Your task to perform on an android device: What's the weather going to be this weekend? Image 0: 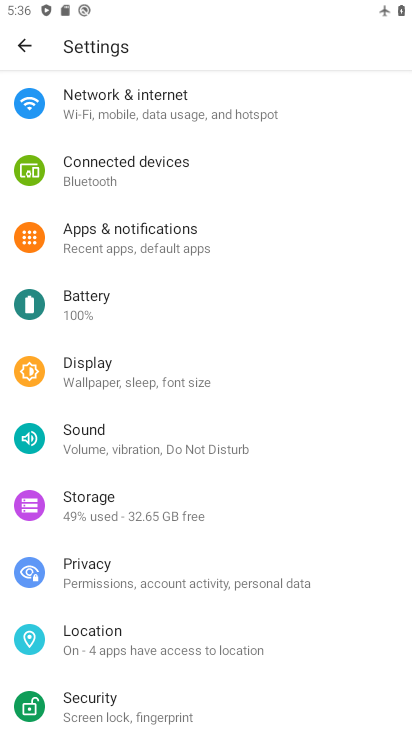
Step 0: press home button
Your task to perform on an android device: What's the weather going to be this weekend? Image 1: 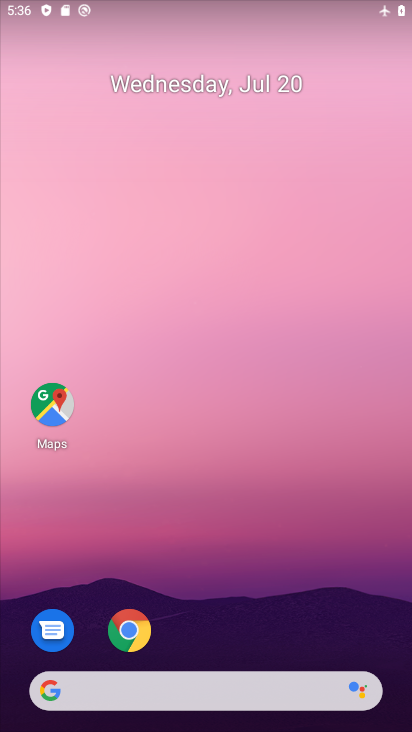
Step 1: drag from (330, 650) to (394, 12)
Your task to perform on an android device: What's the weather going to be this weekend? Image 2: 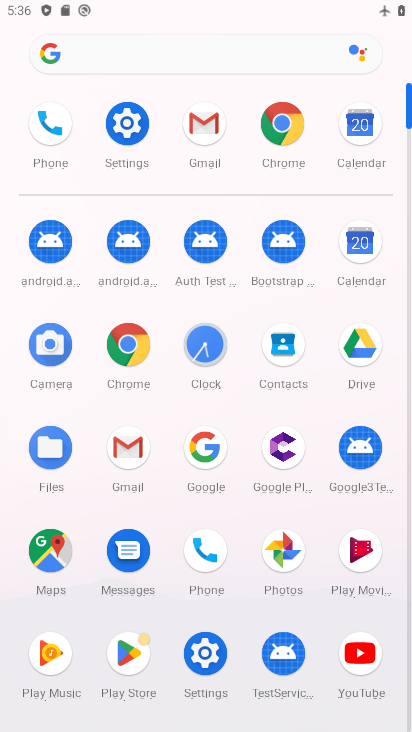
Step 2: click (117, 346)
Your task to perform on an android device: What's the weather going to be this weekend? Image 3: 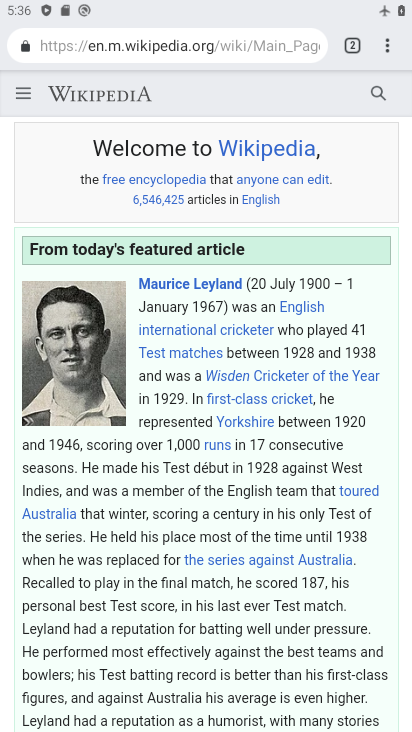
Step 3: click (203, 50)
Your task to perform on an android device: What's the weather going to be this weekend? Image 4: 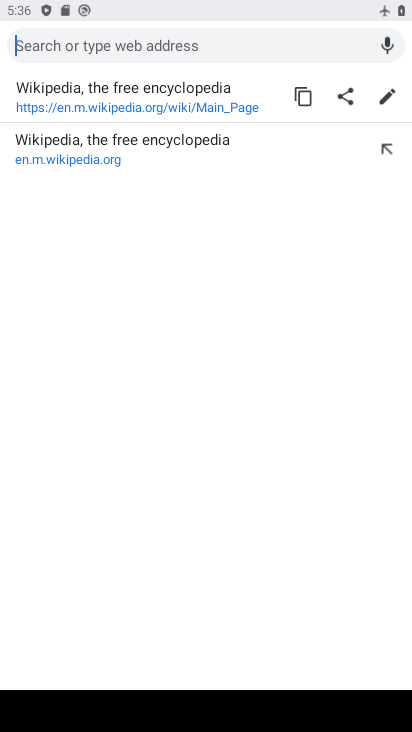
Step 4: type "weather going to be this weekend"
Your task to perform on an android device: What's the weather going to be this weekend? Image 5: 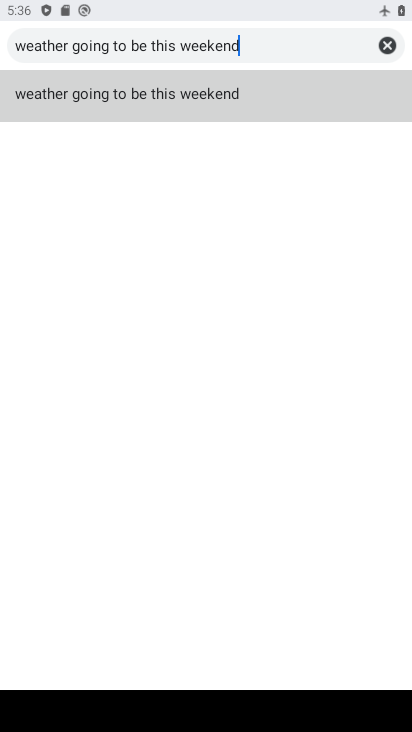
Step 5: click (267, 94)
Your task to perform on an android device: What's the weather going to be this weekend? Image 6: 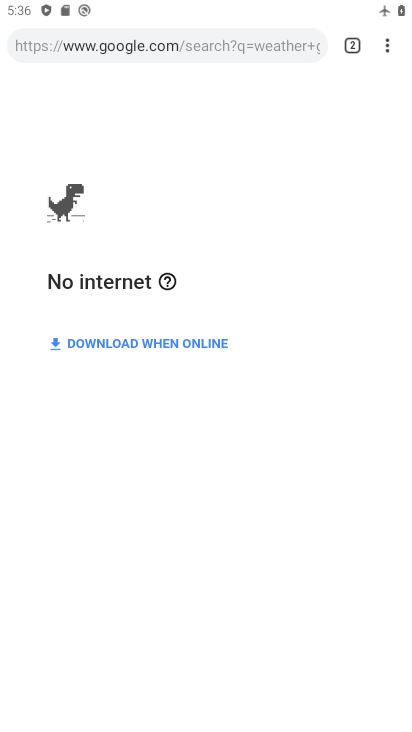
Step 6: task complete